Your task to perform on an android device: change the clock display to digital Image 0: 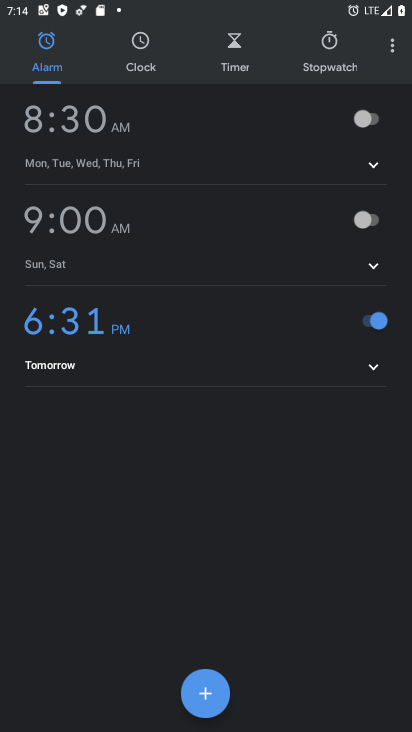
Step 0: click (395, 47)
Your task to perform on an android device: change the clock display to digital Image 1: 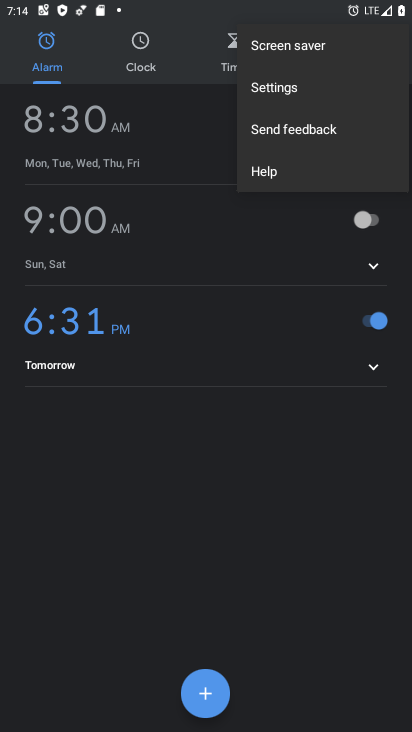
Step 1: click (272, 86)
Your task to perform on an android device: change the clock display to digital Image 2: 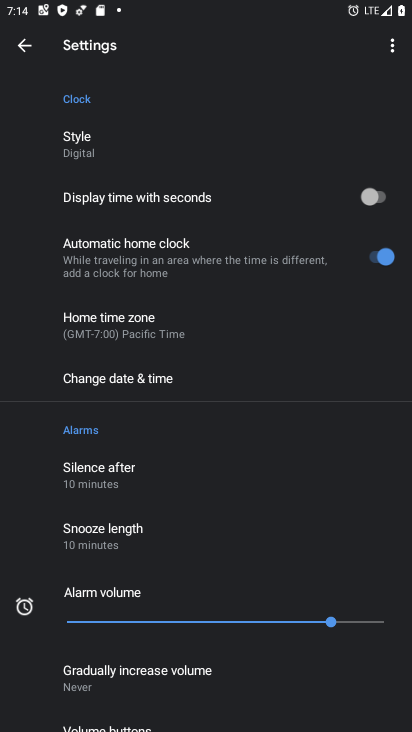
Step 2: task complete